Your task to perform on an android device: Search for sushi restaurants on Maps Image 0: 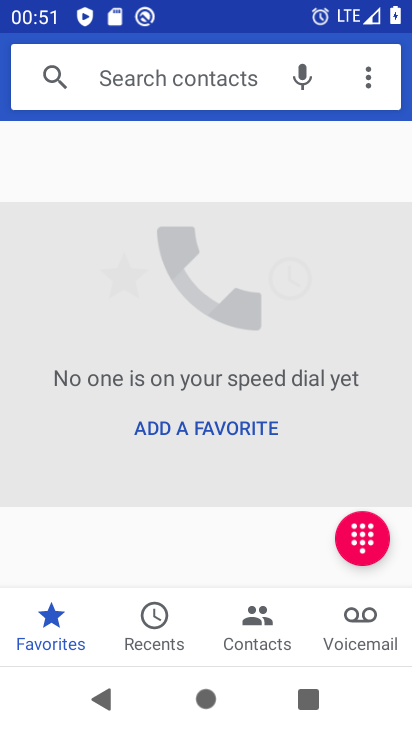
Step 0: press home button
Your task to perform on an android device: Search for sushi restaurants on Maps Image 1: 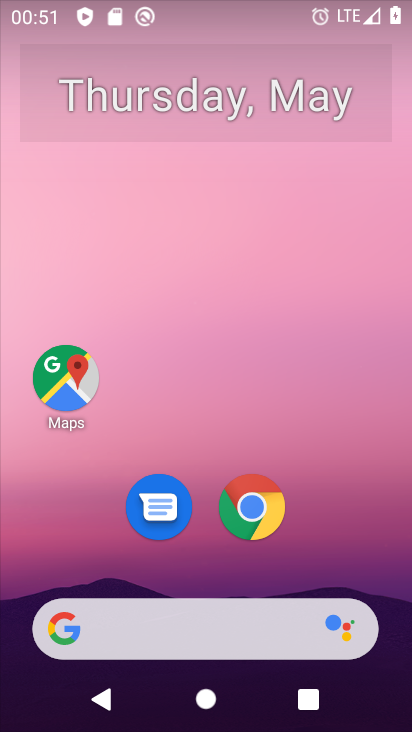
Step 1: click (82, 380)
Your task to perform on an android device: Search for sushi restaurants on Maps Image 2: 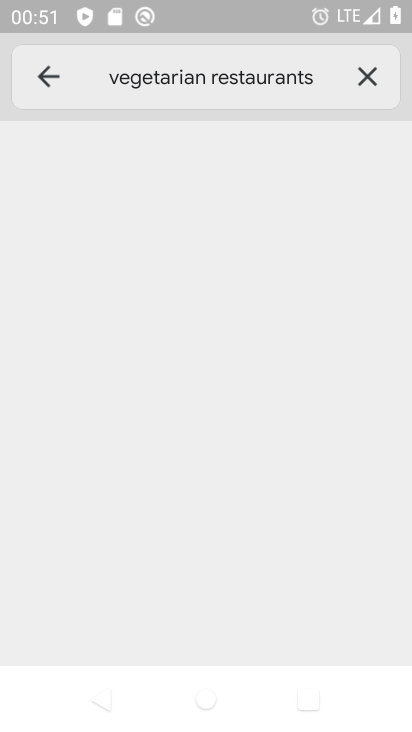
Step 2: click (368, 76)
Your task to perform on an android device: Search for sushi restaurants on Maps Image 3: 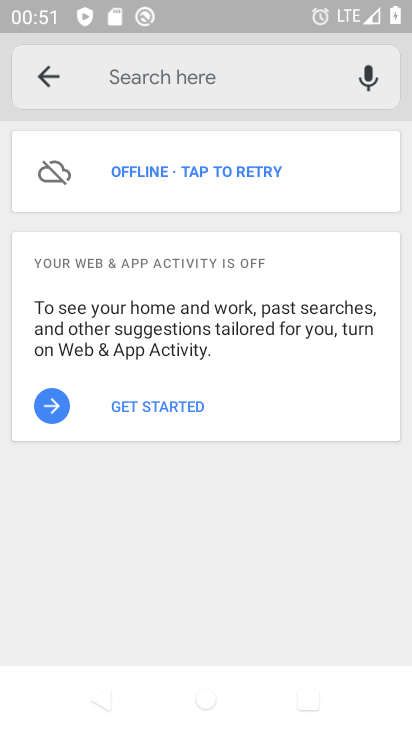
Step 3: click (300, 65)
Your task to perform on an android device: Search for sushi restaurants on Maps Image 4: 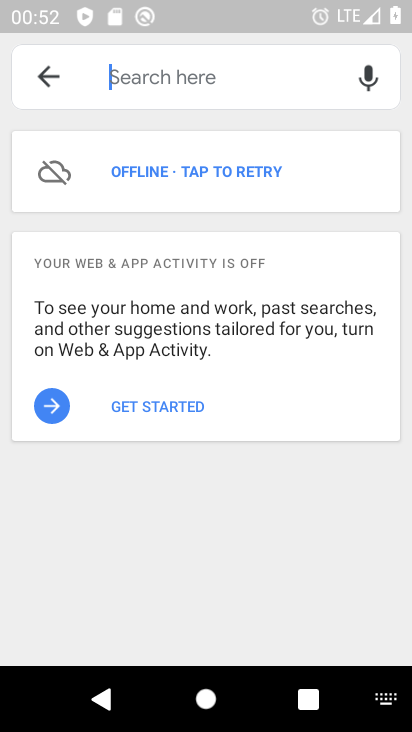
Step 4: type "sushi restaurants"
Your task to perform on an android device: Search for sushi restaurants on Maps Image 5: 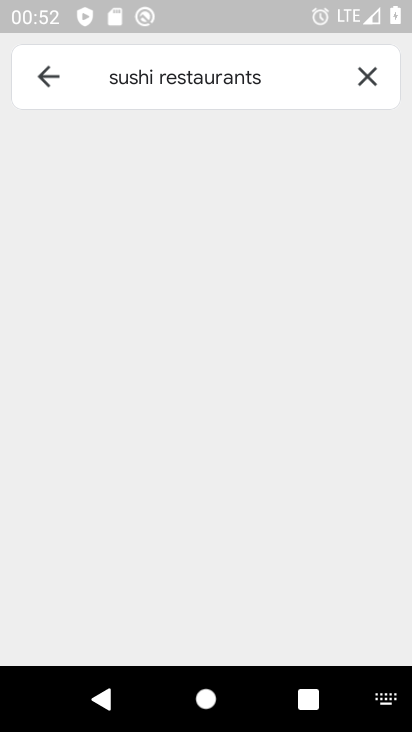
Step 5: task complete